Your task to perform on an android device: Clear the cart on amazon. Image 0: 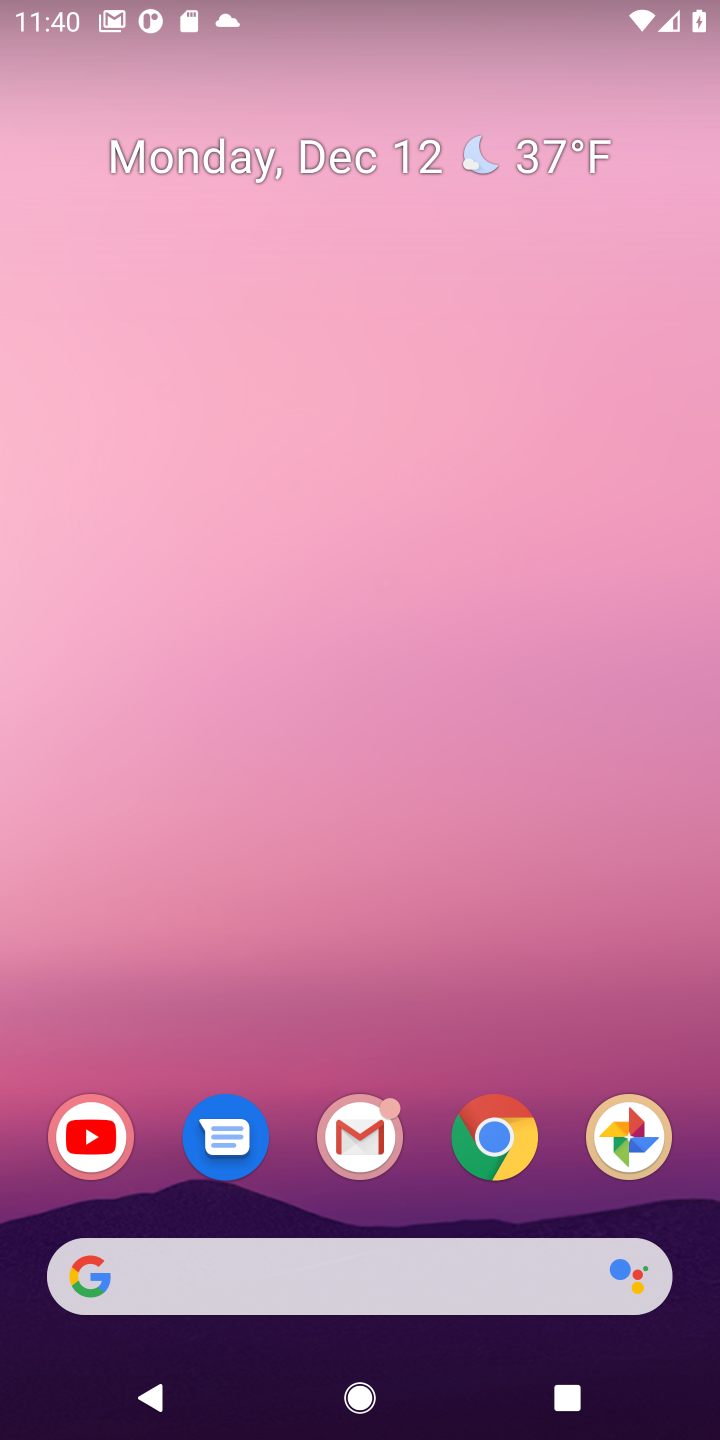
Step 0: click (448, 1269)
Your task to perform on an android device: Clear the cart on amazon. Image 1: 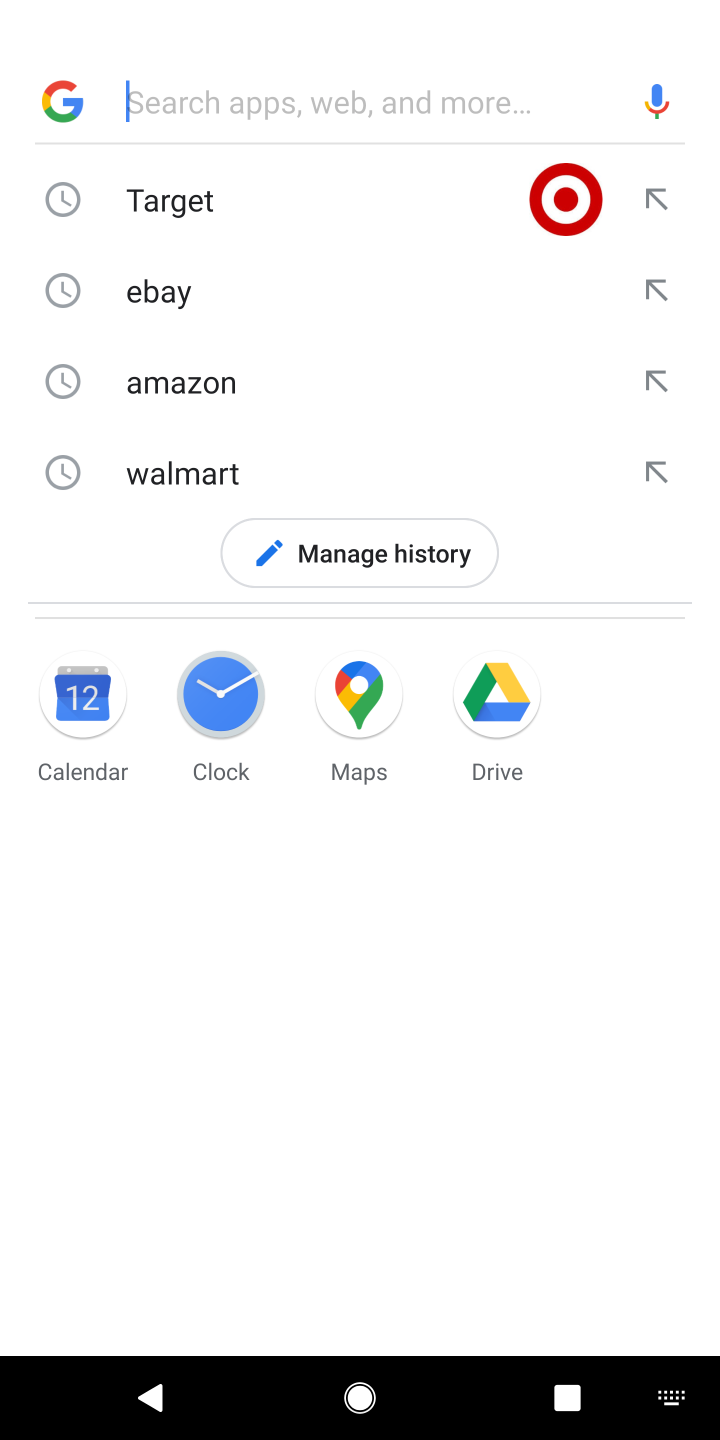
Step 1: click (244, 391)
Your task to perform on an android device: Clear the cart on amazon. Image 2: 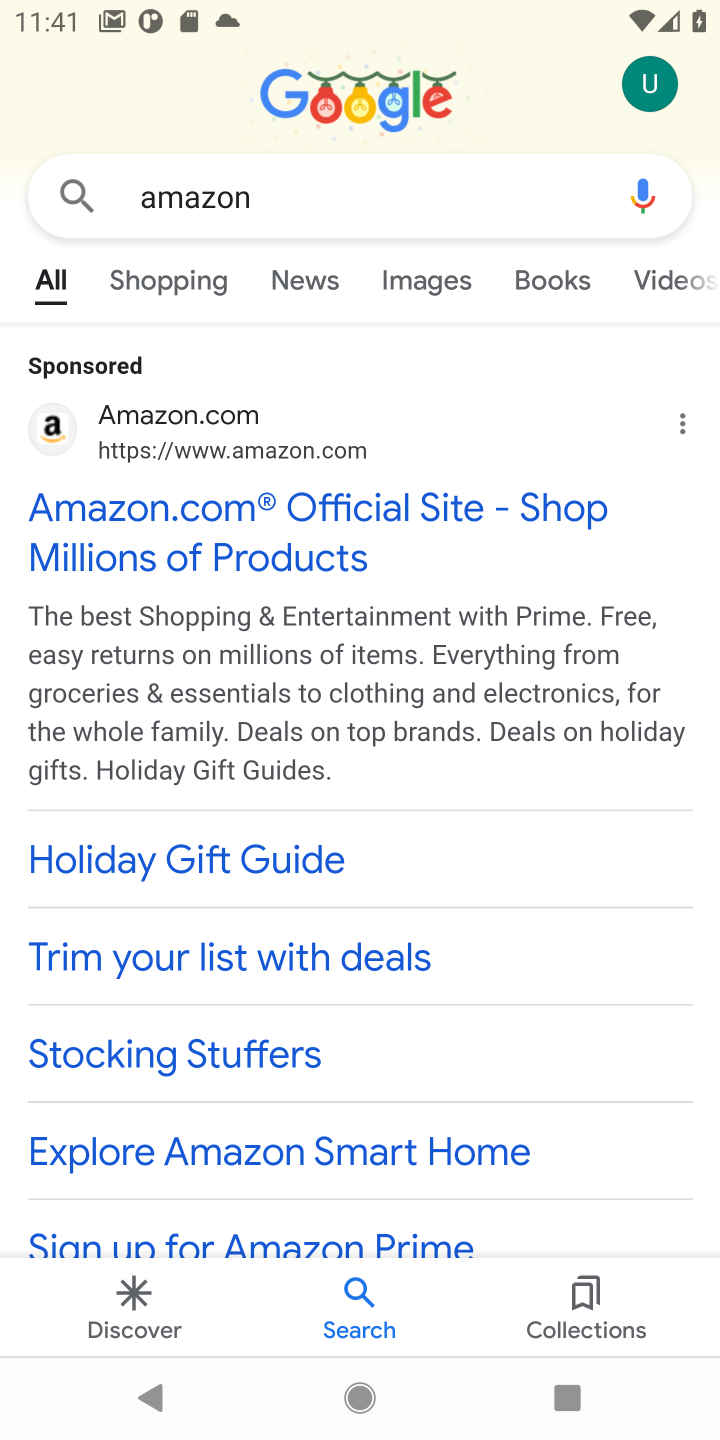
Step 2: click (88, 530)
Your task to perform on an android device: Clear the cart on amazon. Image 3: 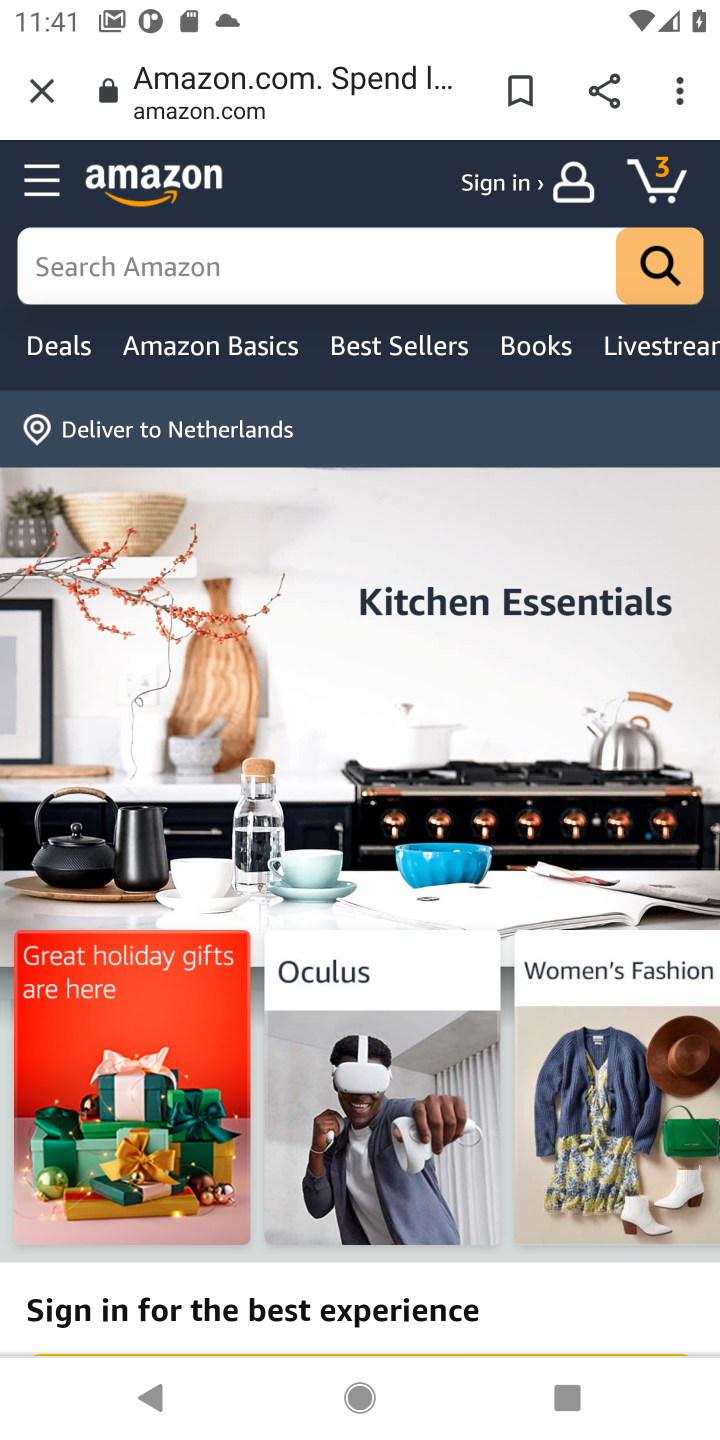
Step 3: click (653, 165)
Your task to perform on an android device: Clear the cart on amazon. Image 4: 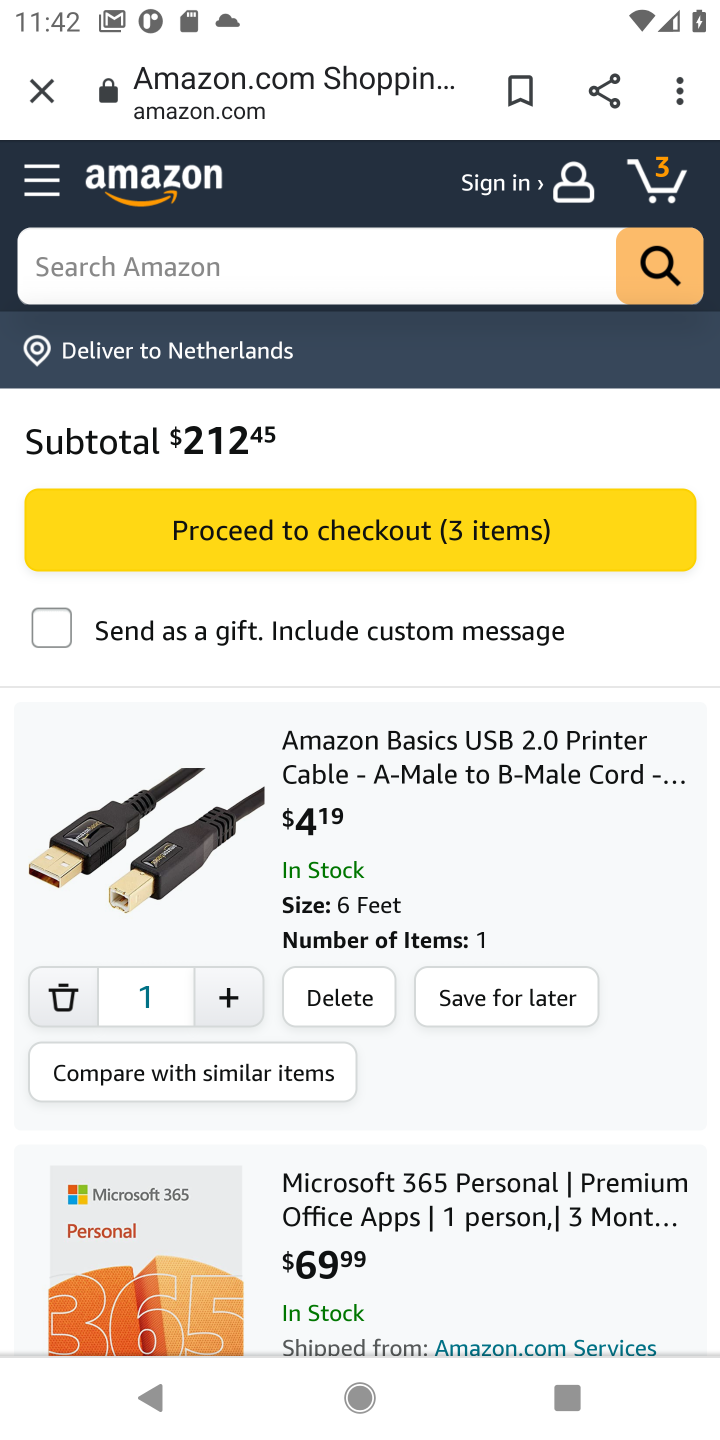
Step 4: click (60, 989)
Your task to perform on an android device: Clear the cart on amazon. Image 5: 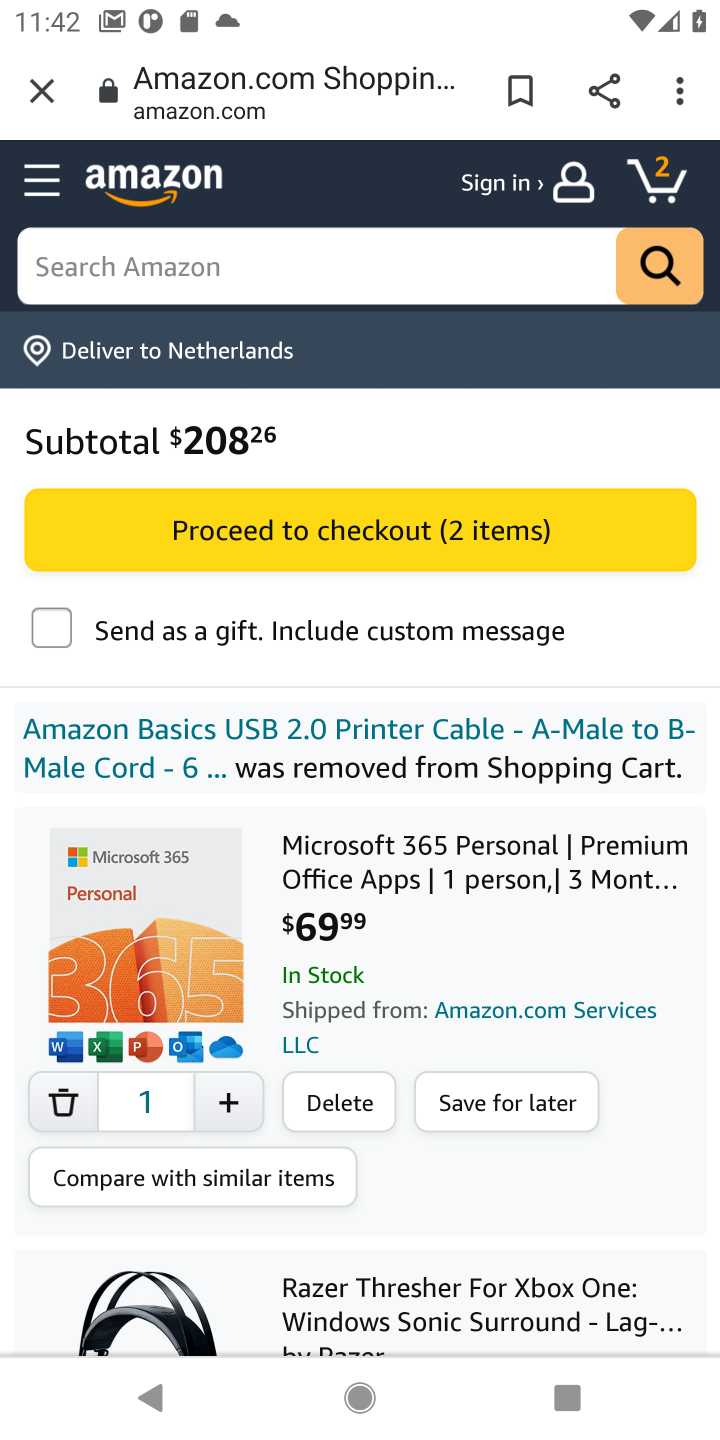
Step 5: click (49, 1096)
Your task to perform on an android device: Clear the cart on amazon. Image 6: 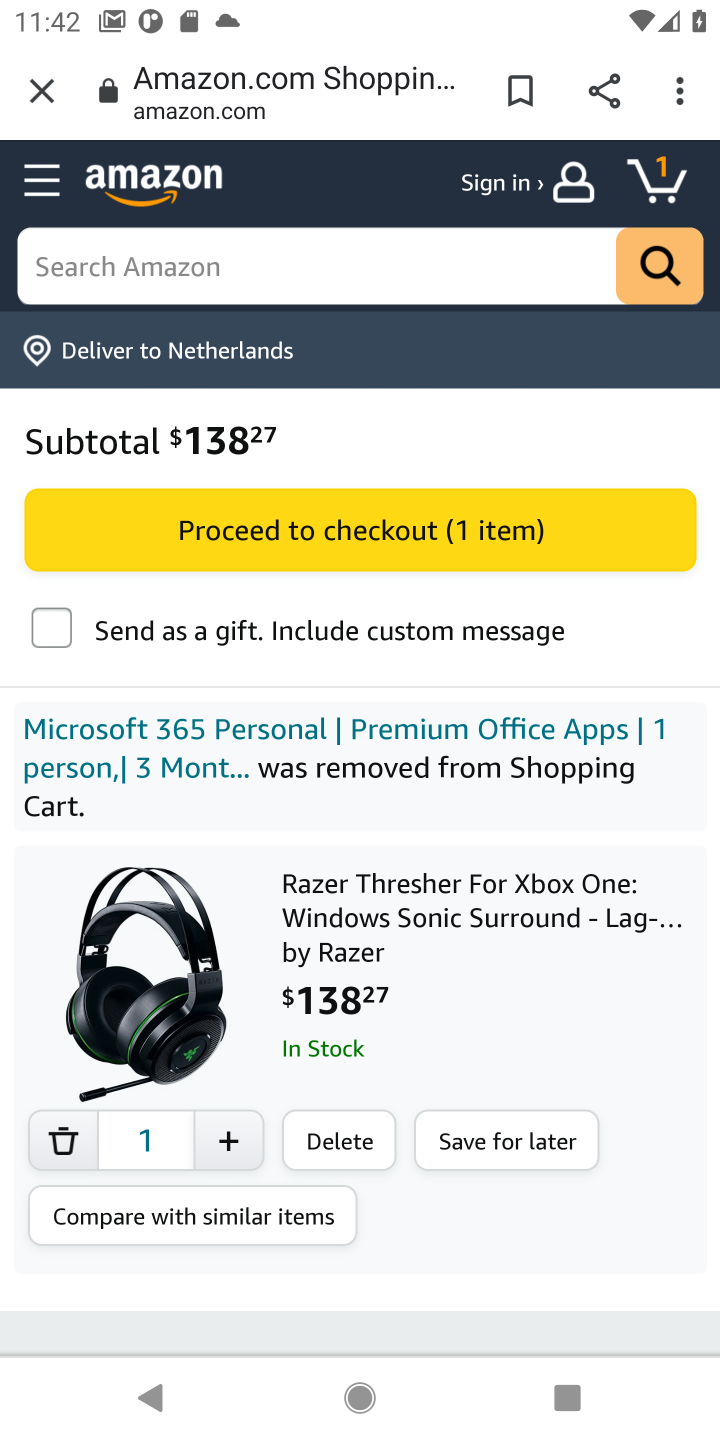
Step 6: click (56, 1130)
Your task to perform on an android device: Clear the cart on amazon. Image 7: 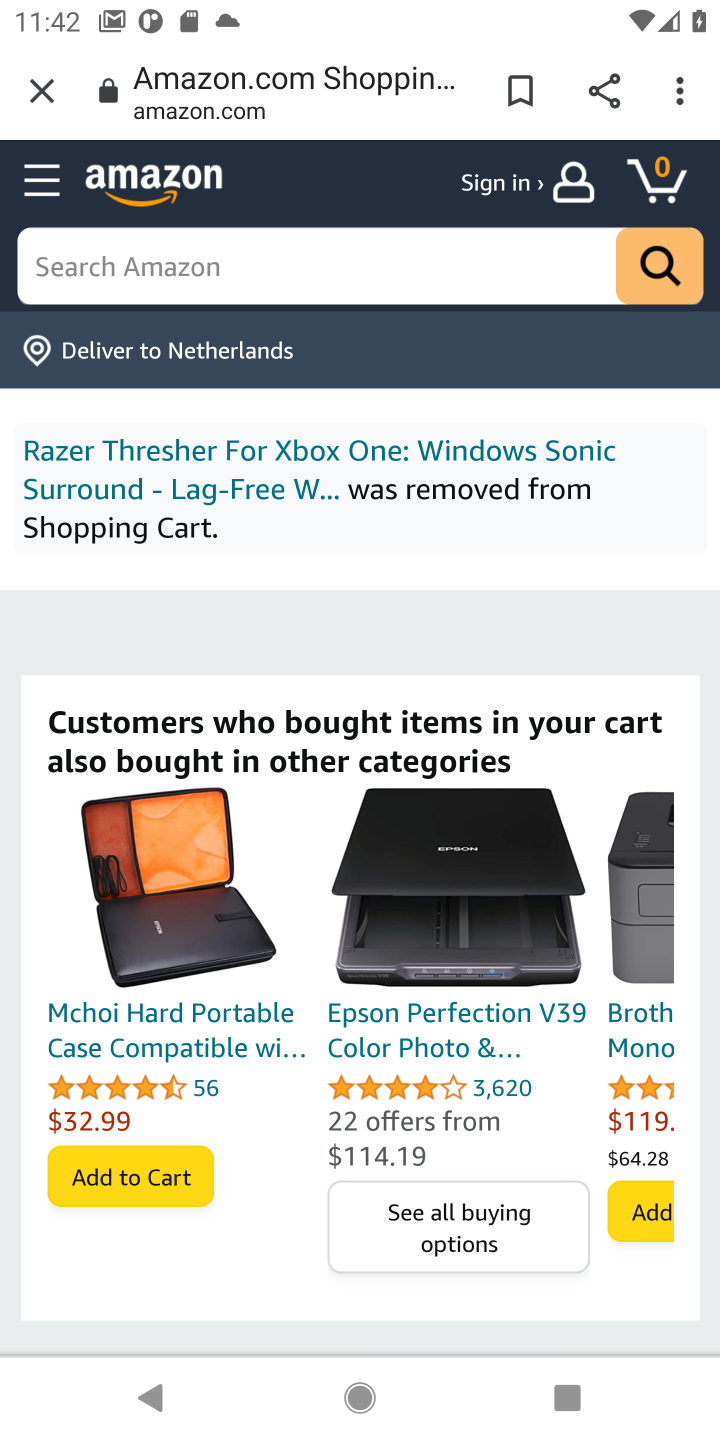
Step 7: task complete